Your task to perform on an android device: toggle wifi Image 0: 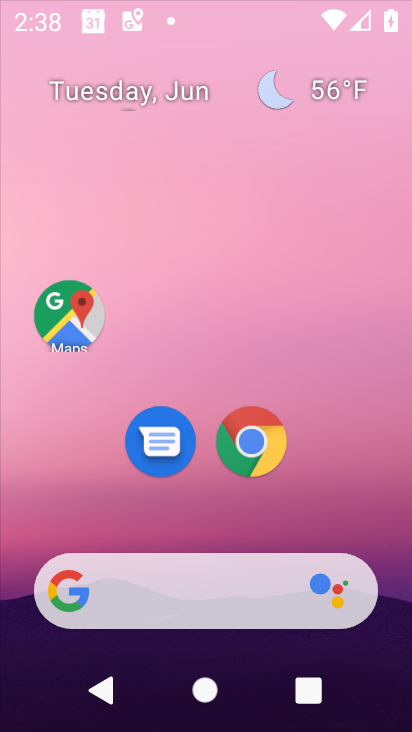
Step 0: click (213, 5)
Your task to perform on an android device: toggle wifi Image 1: 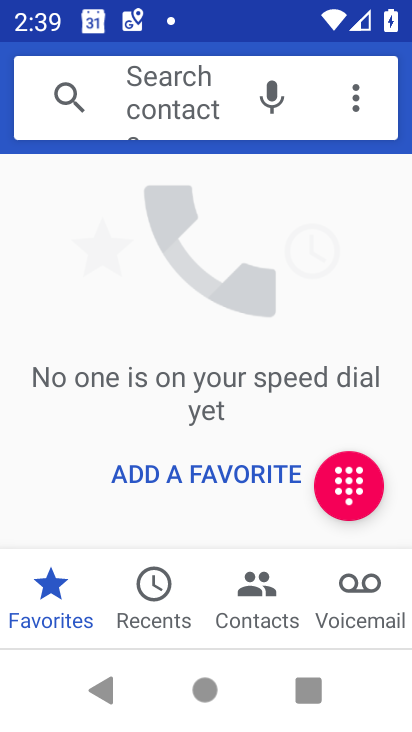
Step 1: press home button
Your task to perform on an android device: toggle wifi Image 2: 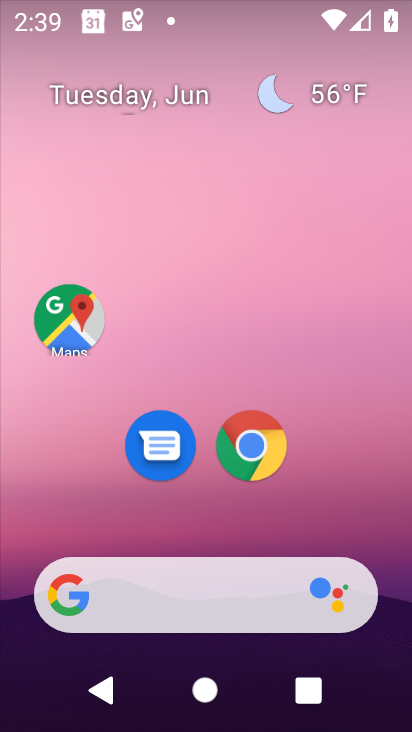
Step 2: drag from (233, 457) to (239, 104)
Your task to perform on an android device: toggle wifi Image 3: 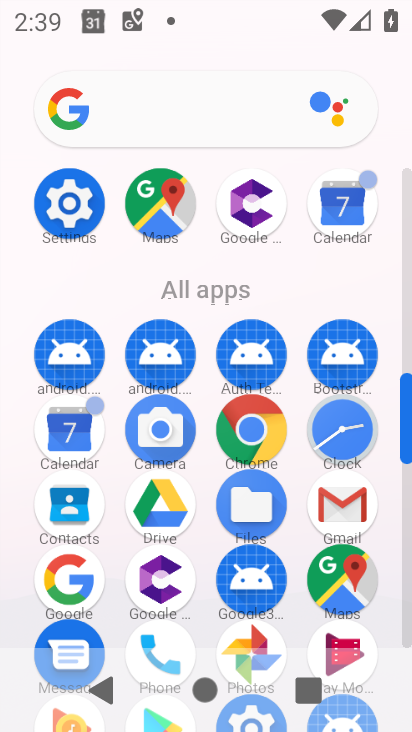
Step 3: click (48, 205)
Your task to perform on an android device: toggle wifi Image 4: 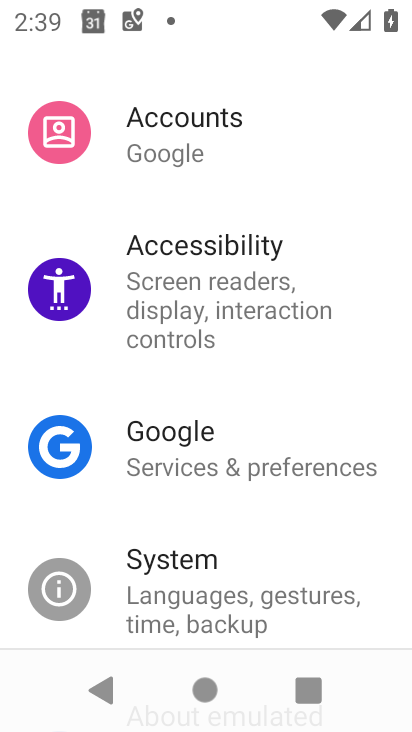
Step 4: drag from (350, 163) to (300, 651)
Your task to perform on an android device: toggle wifi Image 5: 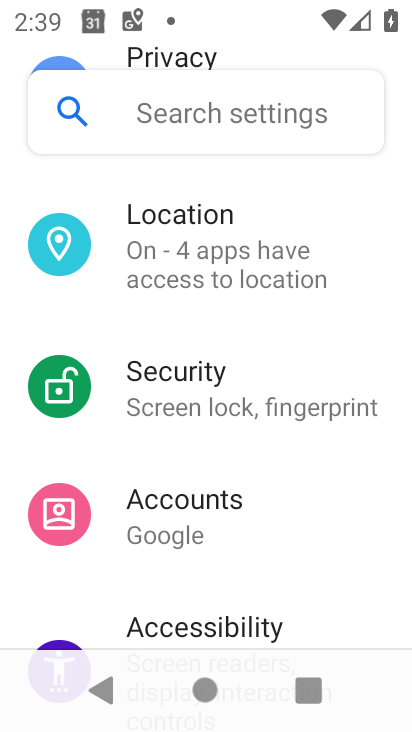
Step 5: drag from (278, 347) to (257, 672)
Your task to perform on an android device: toggle wifi Image 6: 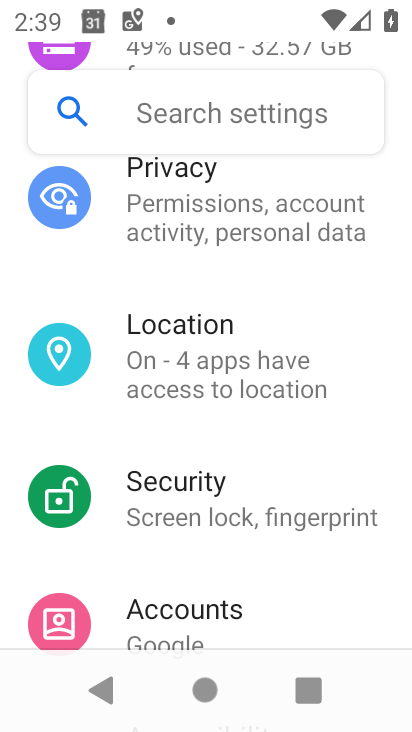
Step 6: drag from (348, 274) to (283, 725)
Your task to perform on an android device: toggle wifi Image 7: 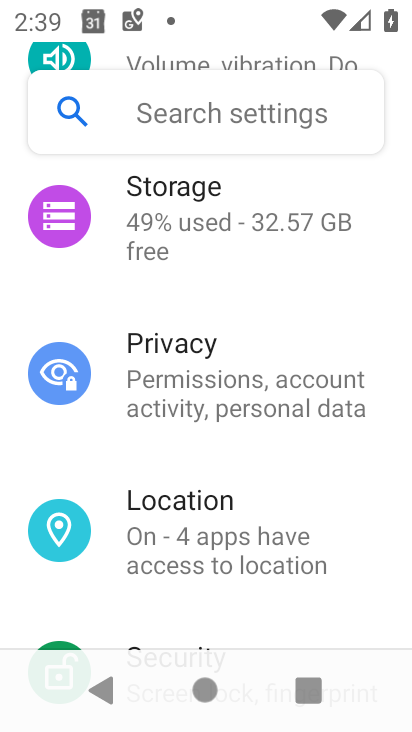
Step 7: drag from (341, 250) to (271, 723)
Your task to perform on an android device: toggle wifi Image 8: 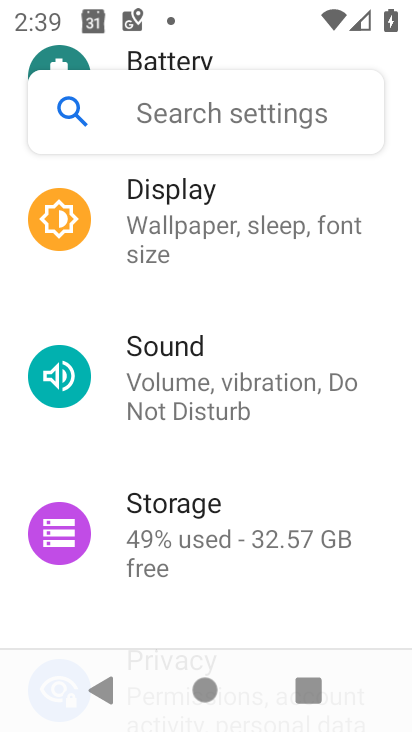
Step 8: drag from (347, 171) to (317, 728)
Your task to perform on an android device: toggle wifi Image 9: 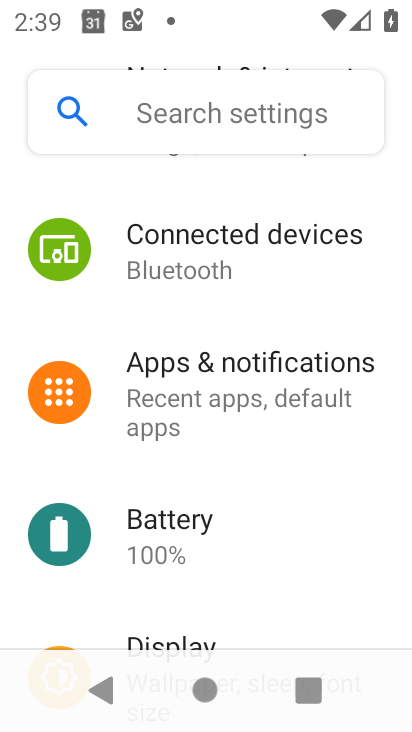
Step 9: drag from (219, 514) to (114, 698)
Your task to perform on an android device: toggle wifi Image 10: 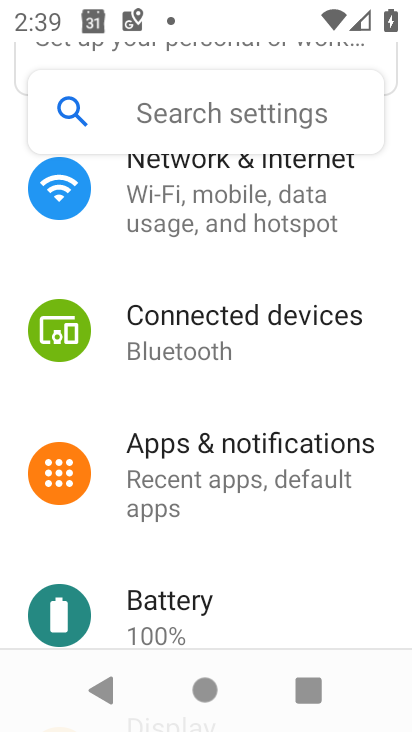
Step 10: click (250, 203)
Your task to perform on an android device: toggle wifi Image 11: 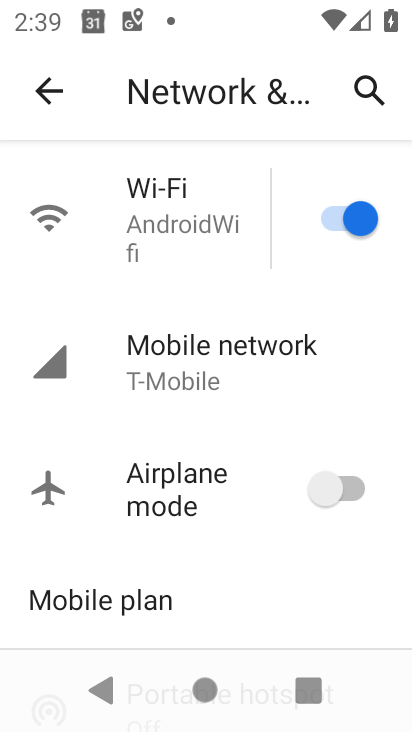
Step 11: click (351, 227)
Your task to perform on an android device: toggle wifi Image 12: 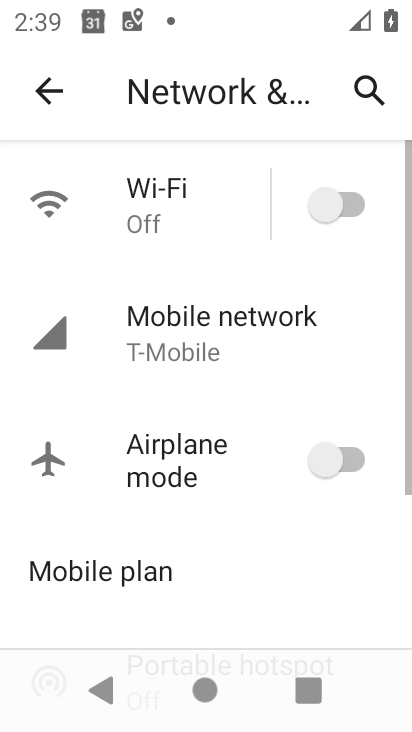
Step 12: task complete